Your task to perform on an android device: turn off priority inbox in the gmail app Image 0: 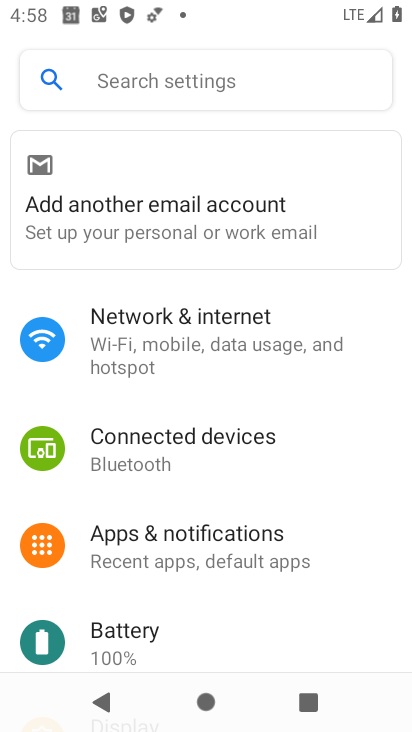
Step 0: press home button
Your task to perform on an android device: turn off priority inbox in the gmail app Image 1: 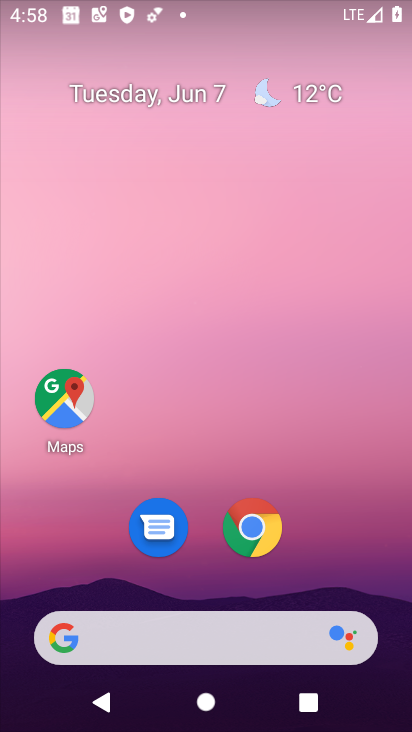
Step 1: drag from (340, 547) to (205, 5)
Your task to perform on an android device: turn off priority inbox in the gmail app Image 2: 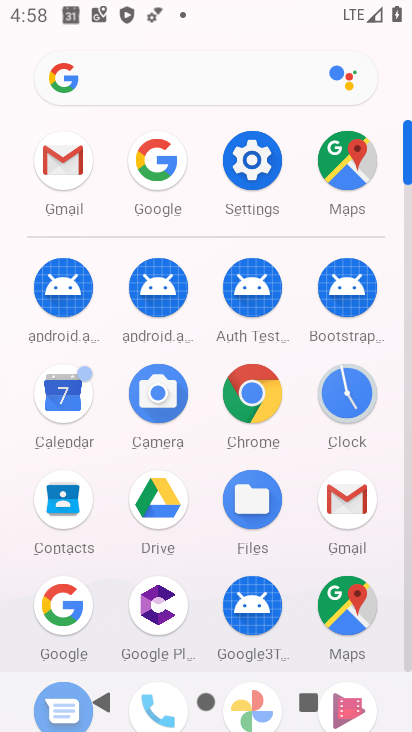
Step 2: click (60, 153)
Your task to perform on an android device: turn off priority inbox in the gmail app Image 3: 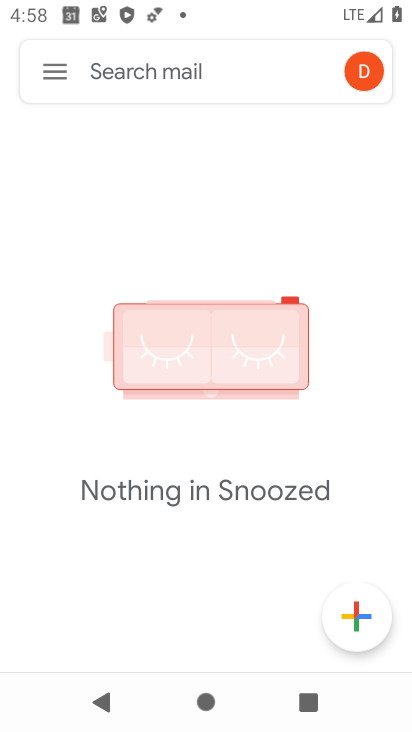
Step 3: click (57, 66)
Your task to perform on an android device: turn off priority inbox in the gmail app Image 4: 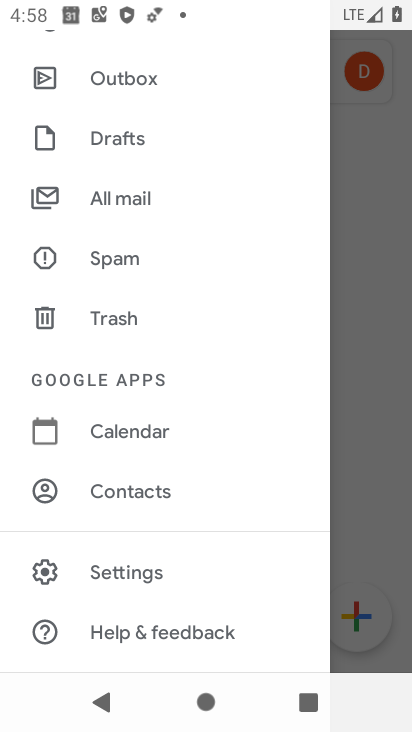
Step 4: click (139, 565)
Your task to perform on an android device: turn off priority inbox in the gmail app Image 5: 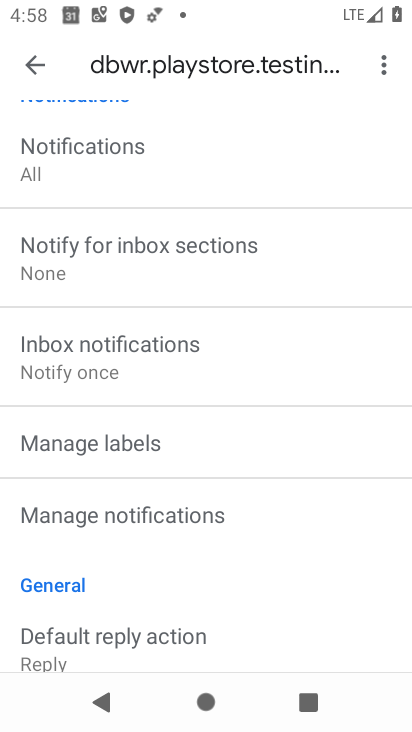
Step 5: drag from (160, 177) to (143, 473)
Your task to perform on an android device: turn off priority inbox in the gmail app Image 6: 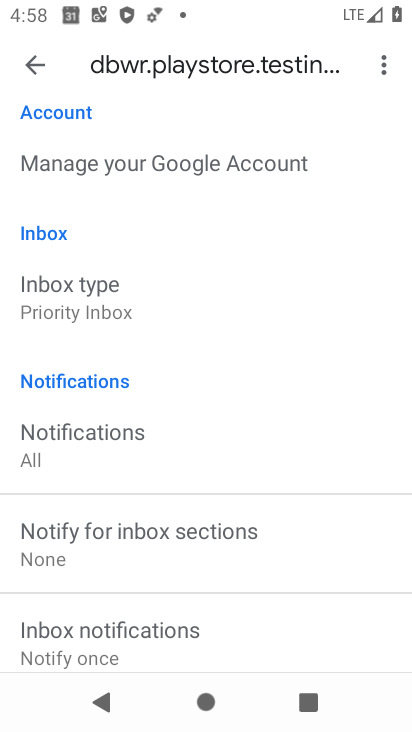
Step 6: click (125, 313)
Your task to perform on an android device: turn off priority inbox in the gmail app Image 7: 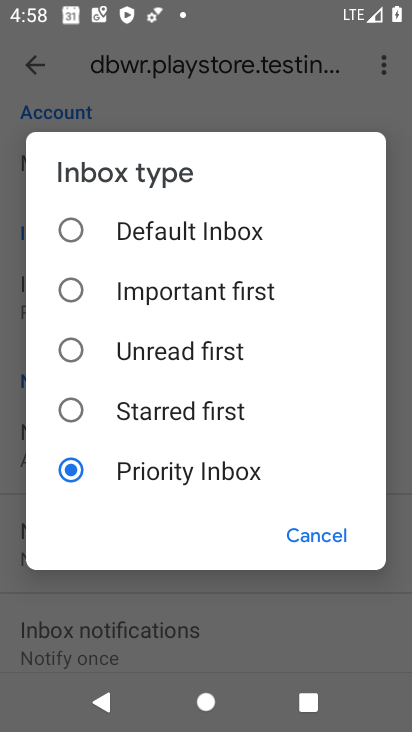
Step 7: click (70, 366)
Your task to perform on an android device: turn off priority inbox in the gmail app Image 8: 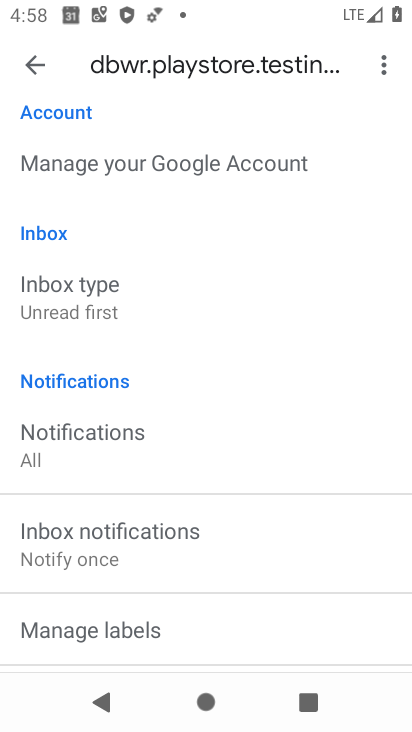
Step 8: task complete